Your task to perform on an android device: toggle data saver in the chrome app Image 0: 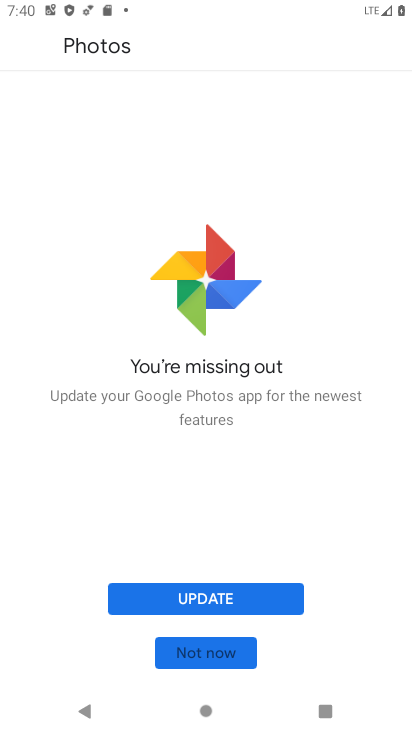
Step 0: press home button
Your task to perform on an android device: toggle data saver in the chrome app Image 1: 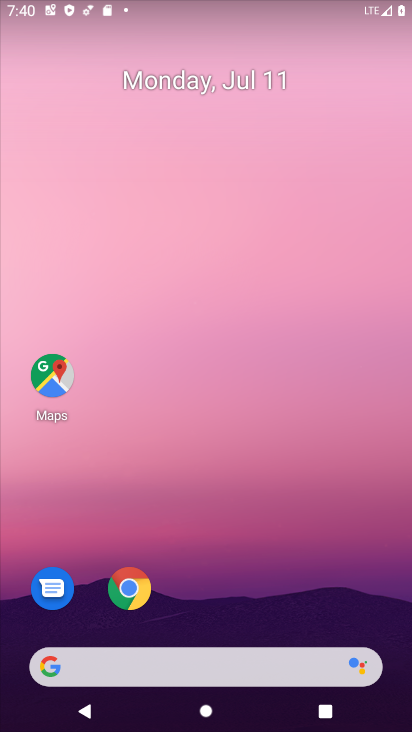
Step 1: drag from (359, 616) to (176, 12)
Your task to perform on an android device: toggle data saver in the chrome app Image 2: 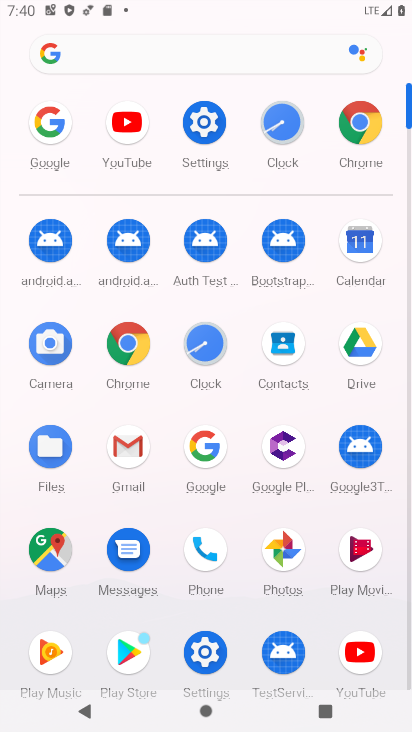
Step 2: click (124, 351)
Your task to perform on an android device: toggle data saver in the chrome app Image 3: 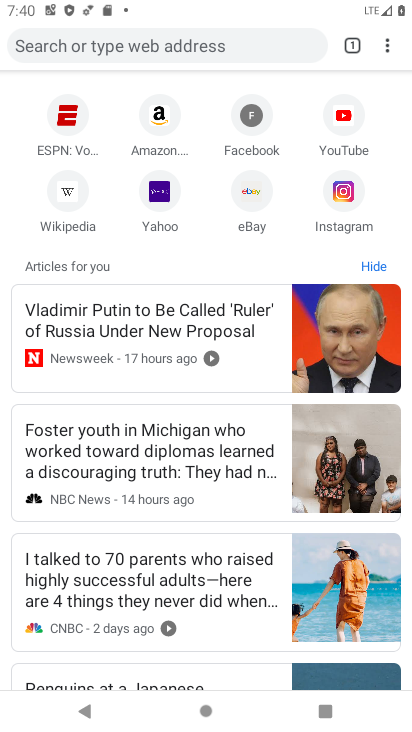
Step 3: click (388, 43)
Your task to perform on an android device: toggle data saver in the chrome app Image 4: 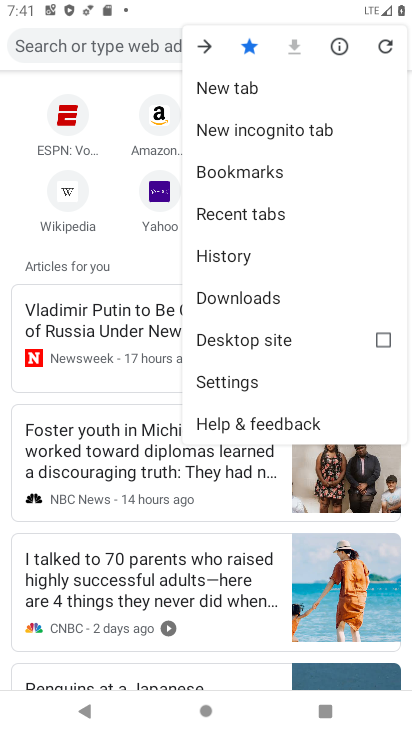
Step 4: click (243, 374)
Your task to perform on an android device: toggle data saver in the chrome app Image 5: 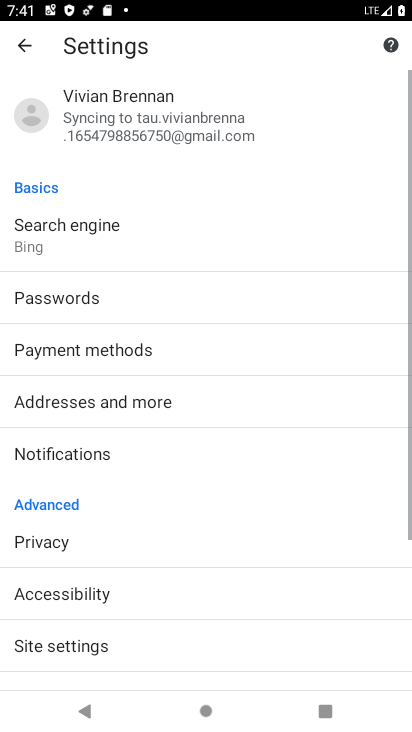
Step 5: drag from (94, 640) to (135, 122)
Your task to perform on an android device: toggle data saver in the chrome app Image 6: 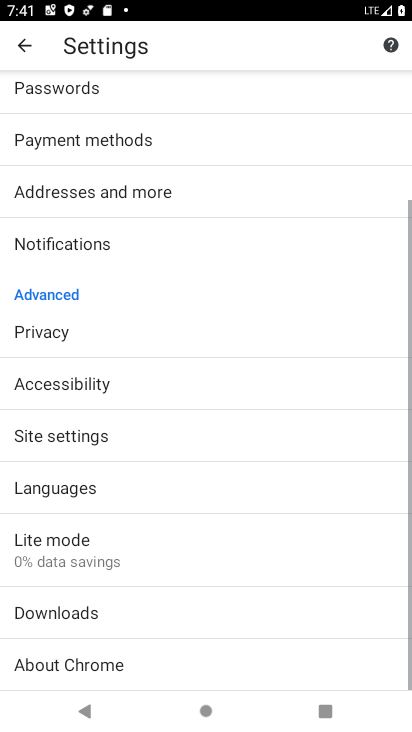
Step 6: click (101, 546)
Your task to perform on an android device: toggle data saver in the chrome app Image 7: 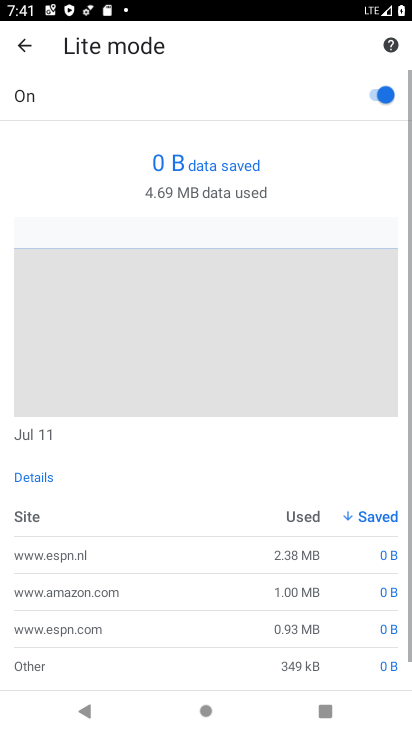
Step 7: click (380, 90)
Your task to perform on an android device: toggle data saver in the chrome app Image 8: 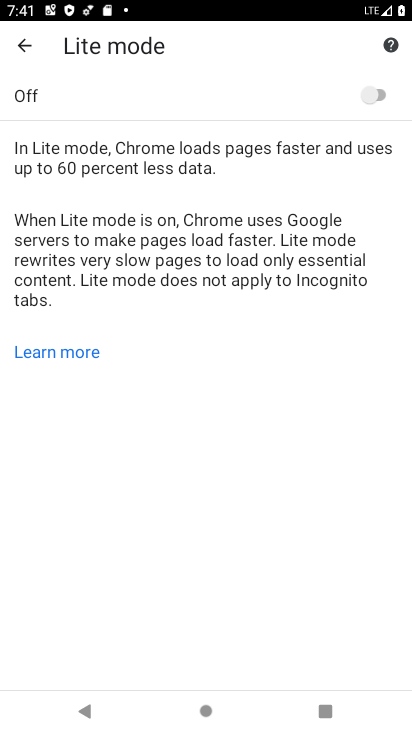
Step 8: task complete